Your task to perform on an android device: turn on showing notifications on the lock screen Image 0: 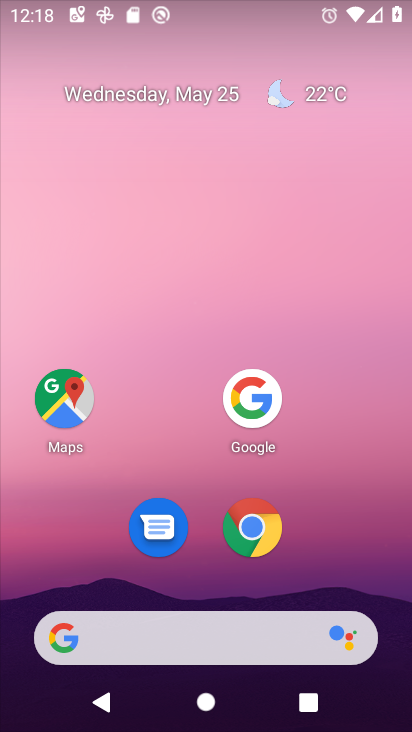
Step 0: drag from (164, 637) to (316, 225)
Your task to perform on an android device: turn on showing notifications on the lock screen Image 1: 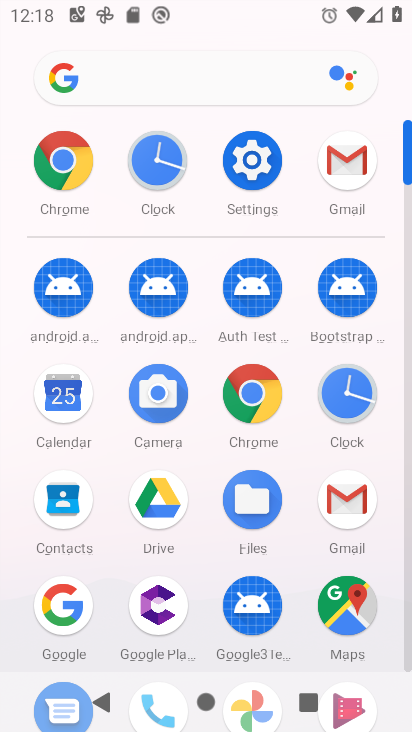
Step 1: click (261, 171)
Your task to perform on an android device: turn on showing notifications on the lock screen Image 2: 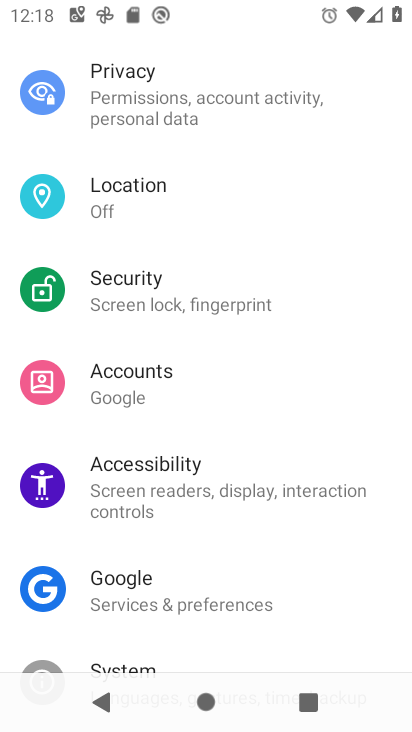
Step 2: drag from (292, 185) to (323, 523)
Your task to perform on an android device: turn on showing notifications on the lock screen Image 3: 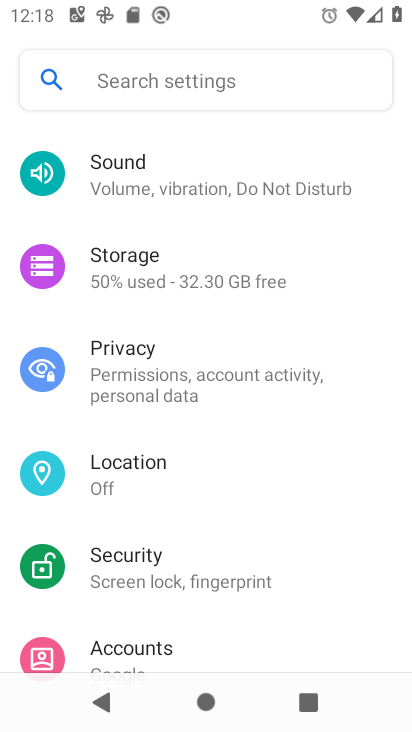
Step 3: drag from (301, 225) to (269, 578)
Your task to perform on an android device: turn on showing notifications on the lock screen Image 4: 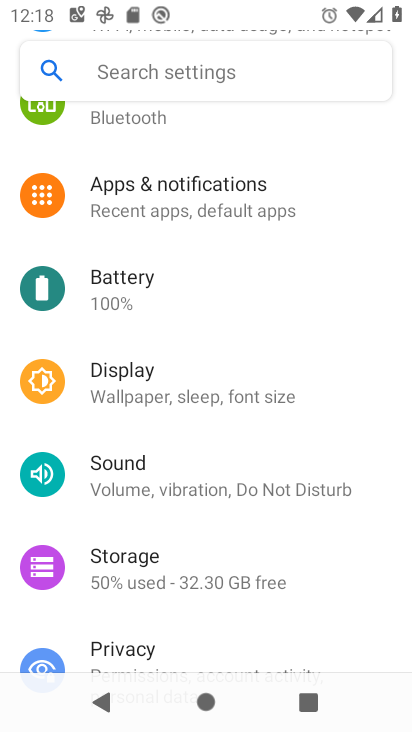
Step 4: click (215, 201)
Your task to perform on an android device: turn on showing notifications on the lock screen Image 5: 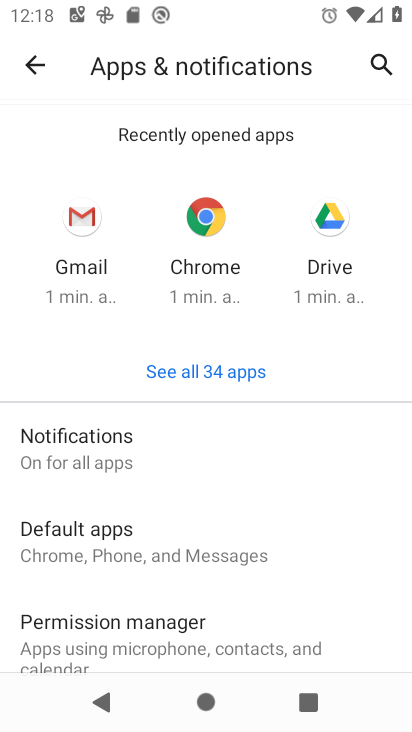
Step 5: click (101, 444)
Your task to perform on an android device: turn on showing notifications on the lock screen Image 6: 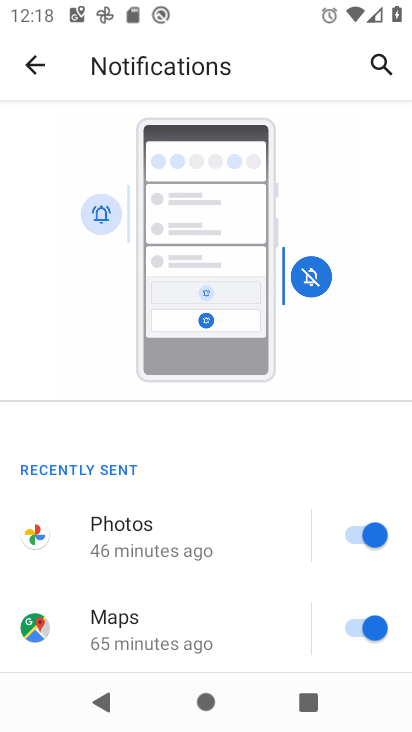
Step 6: drag from (206, 606) to (361, 76)
Your task to perform on an android device: turn on showing notifications on the lock screen Image 7: 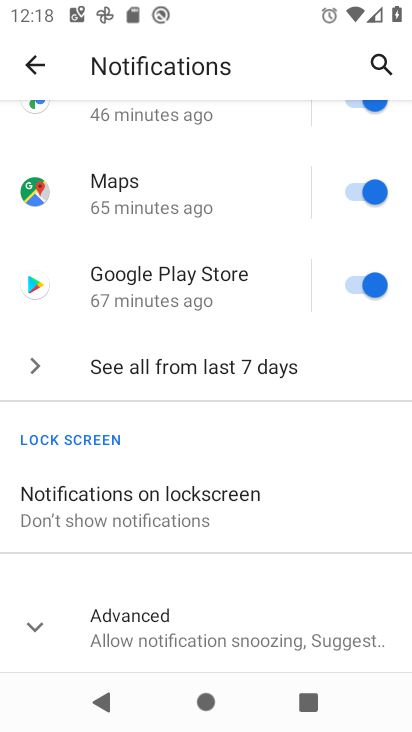
Step 7: click (171, 486)
Your task to perform on an android device: turn on showing notifications on the lock screen Image 8: 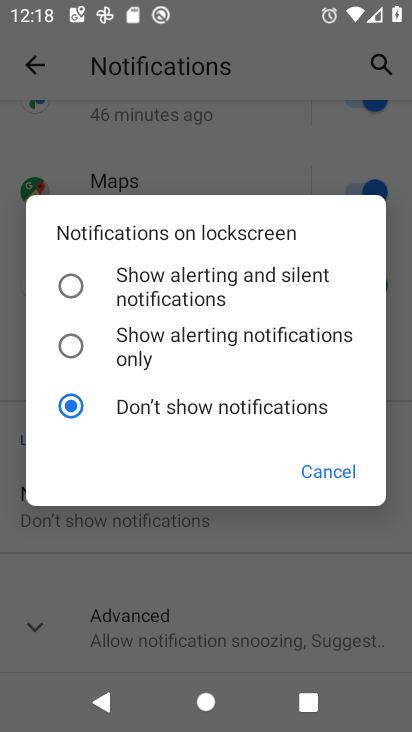
Step 8: click (67, 283)
Your task to perform on an android device: turn on showing notifications on the lock screen Image 9: 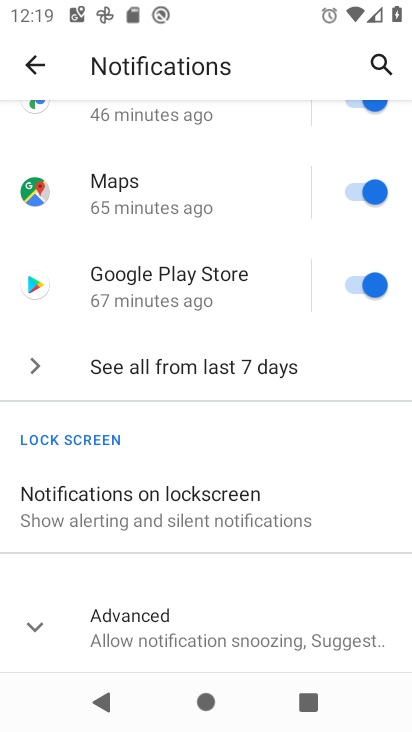
Step 9: task complete